Your task to perform on an android device: Empty the shopping cart on amazon.com. Search for "apple airpods" on amazon.com, select the first entry, add it to the cart, then select checkout. Image 0: 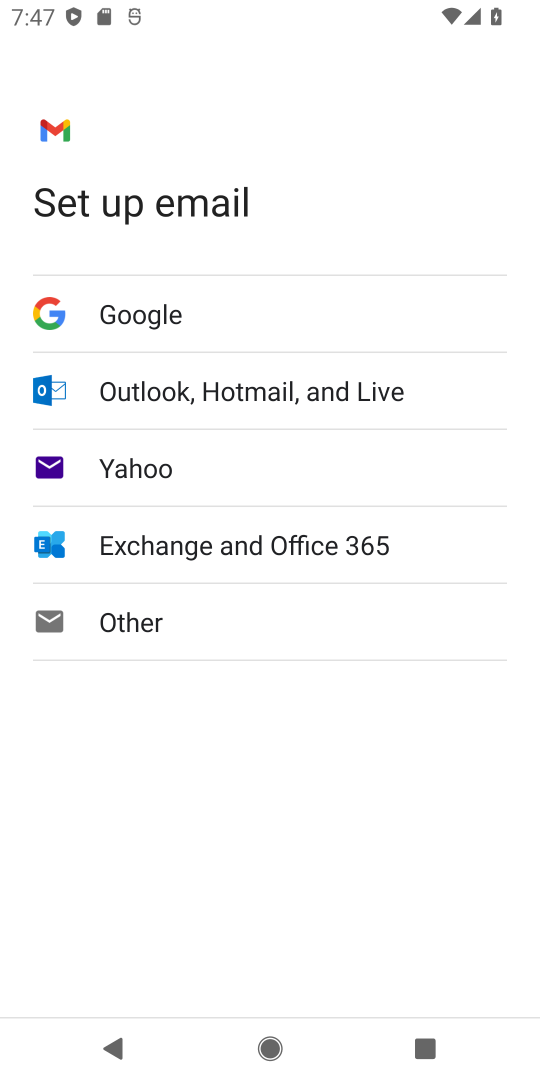
Step 0: press home button
Your task to perform on an android device: Empty the shopping cart on amazon.com. Search for "apple airpods" on amazon.com, select the first entry, add it to the cart, then select checkout. Image 1: 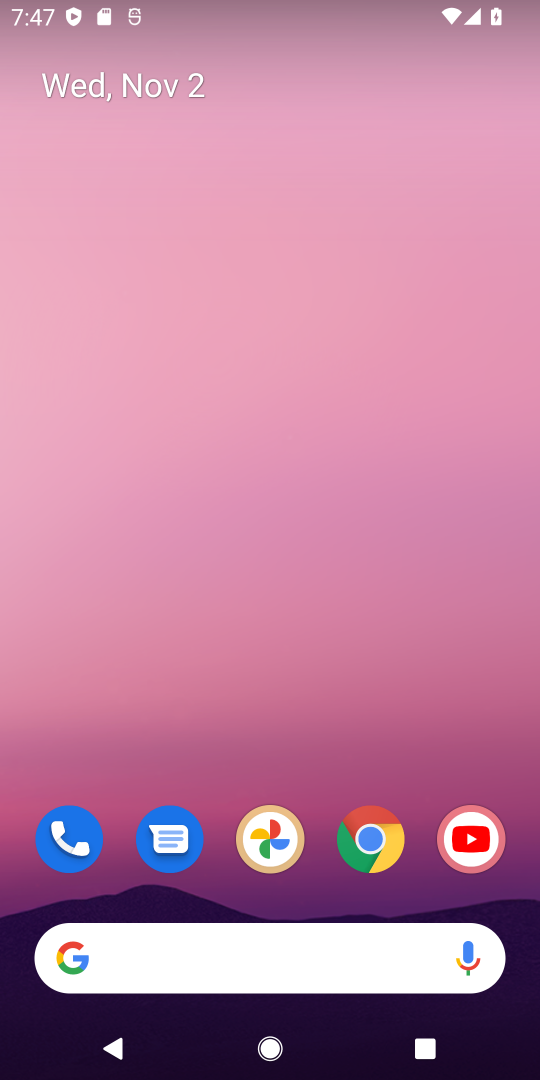
Step 1: click (368, 837)
Your task to perform on an android device: Empty the shopping cart on amazon.com. Search for "apple airpods" on amazon.com, select the first entry, add it to the cart, then select checkout. Image 2: 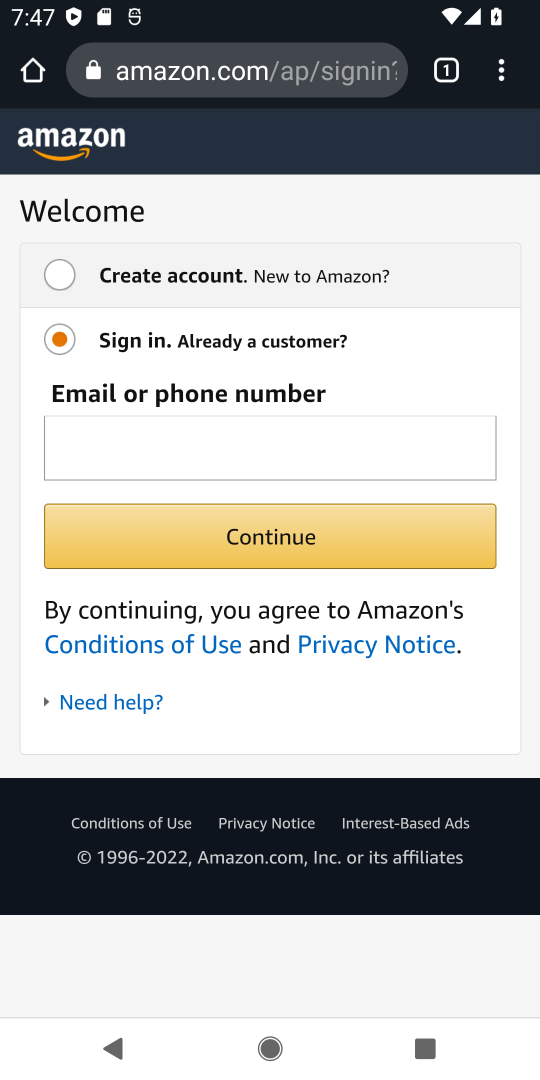
Step 2: click (295, 56)
Your task to perform on an android device: Empty the shopping cart on amazon.com. Search for "apple airpods" on amazon.com, select the first entry, add it to the cart, then select checkout. Image 3: 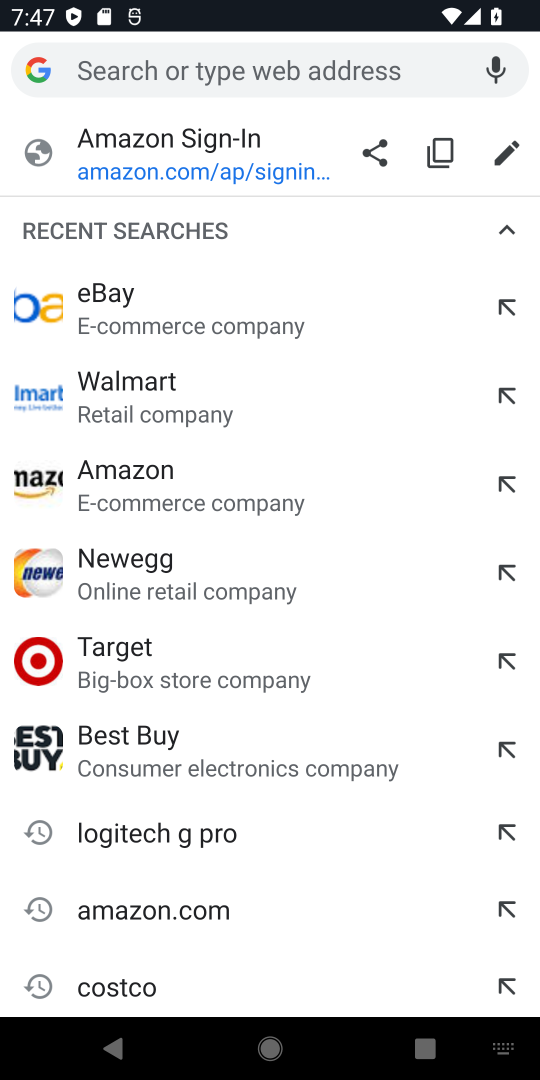
Step 3: type "amazon.com"
Your task to perform on an android device: Empty the shopping cart on amazon.com. Search for "apple airpods" on amazon.com, select the first entry, add it to the cart, then select checkout. Image 4: 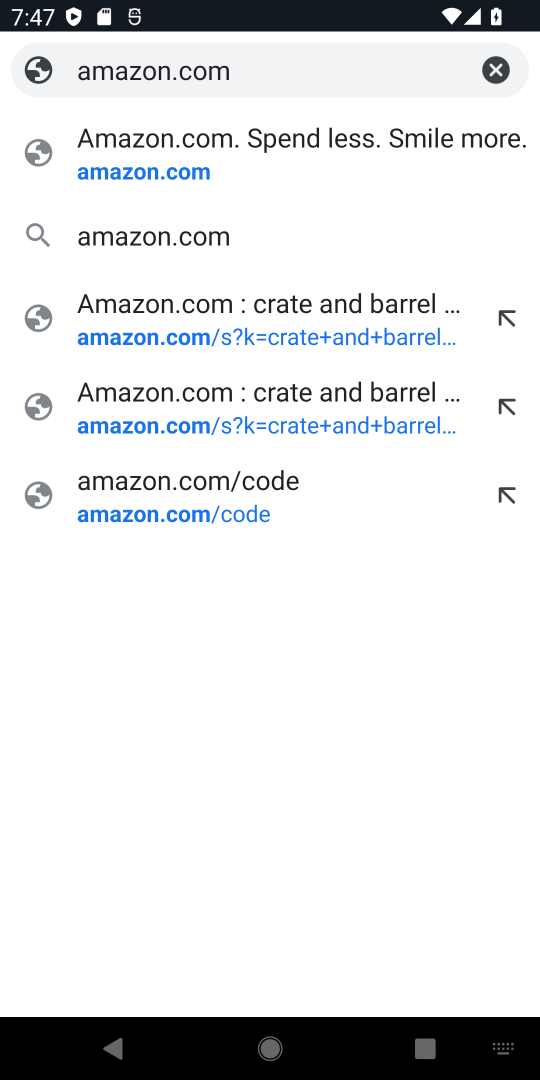
Step 4: click (190, 239)
Your task to perform on an android device: Empty the shopping cart on amazon.com. Search for "apple airpods" on amazon.com, select the first entry, add it to the cart, then select checkout. Image 5: 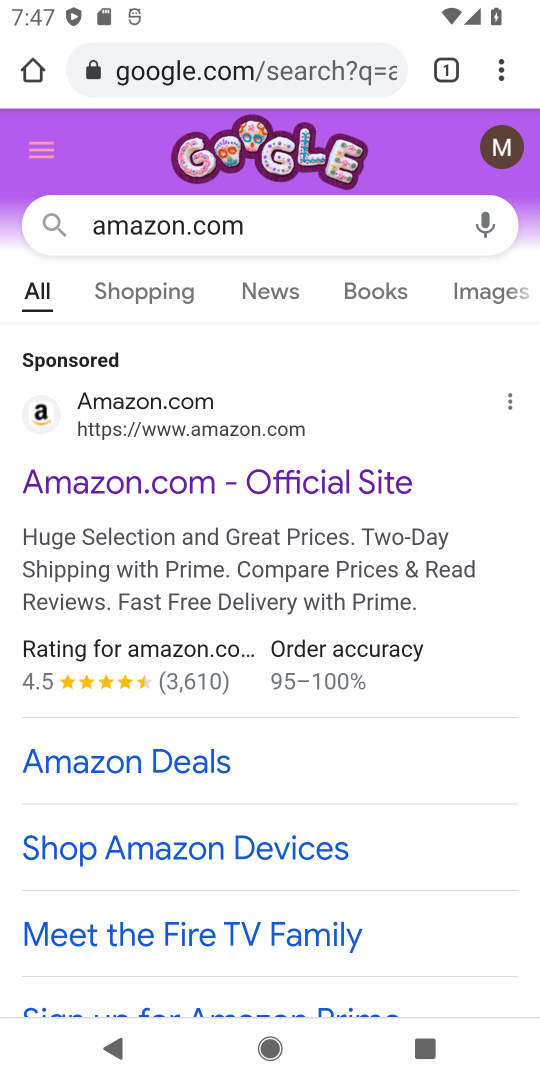
Step 5: drag from (263, 791) to (293, 367)
Your task to perform on an android device: Empty the shopping cart on amazon.com. Search for "apple airpods" on amazon.com, select the first entry, add it to the cart, then select checkout. Image 6: 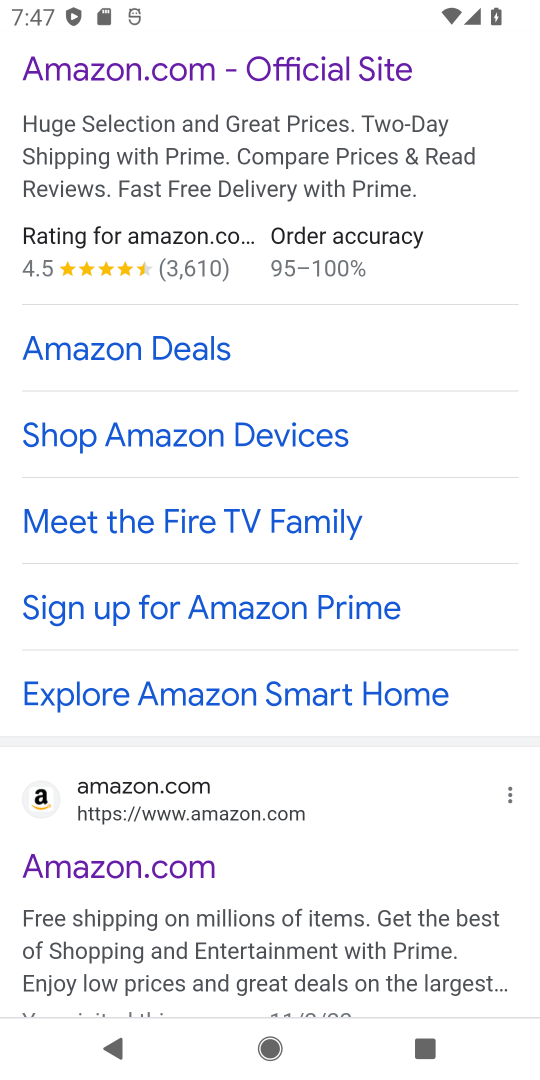
Step 6: click (260, 860)
Your task to perform on an android device: Empty the shopping cart on amazon.com. Search for "apple airpods" on amazon.com, select the first entry, add it to the cart, then select checkout. Image 7: 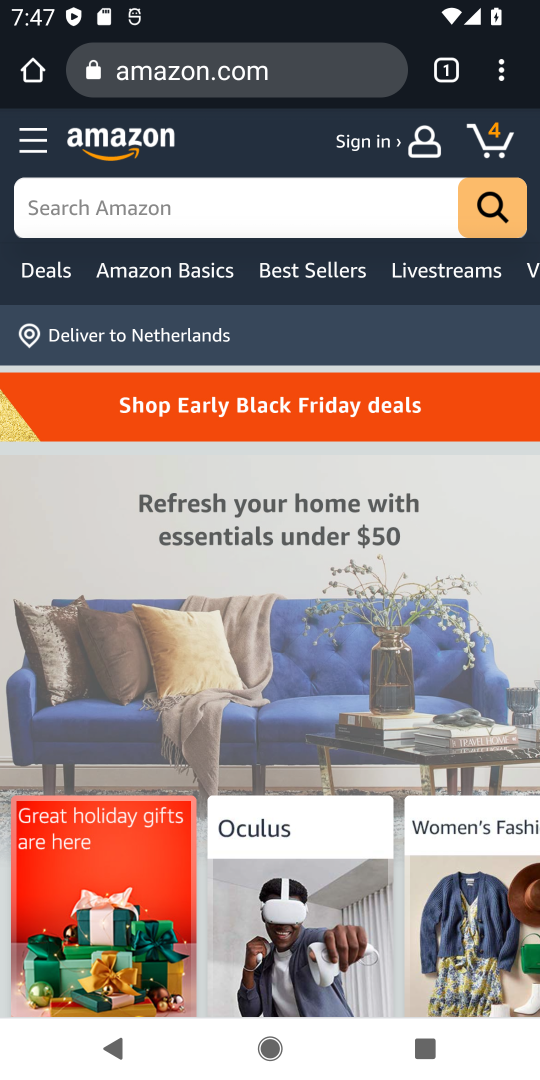
Step 7: click (493, 150)
Your task to perform on an android device: Empty the shopping cart on amazon.com. Search for "apple airpods" on amazon.com, select the first entry, add it to the cart, then select checkout. Image 8: 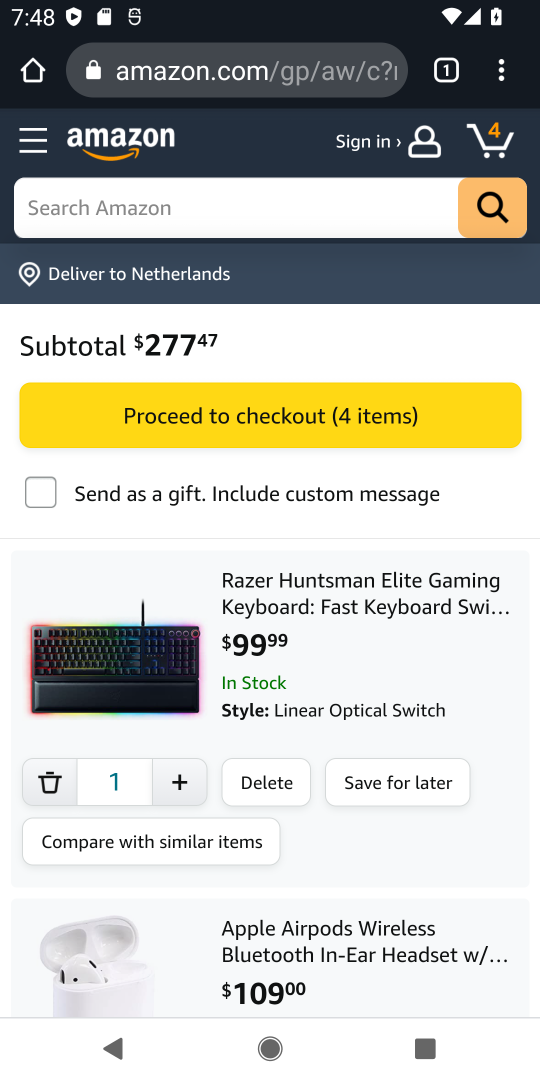
Step 8: click (252, 787)
Your task to perform on an android device: Empty the shopping cart on amazon.com. Search for "apple airpods" on amazon.com, select the first entry, add it to the cart, then select checkout. Image 9: 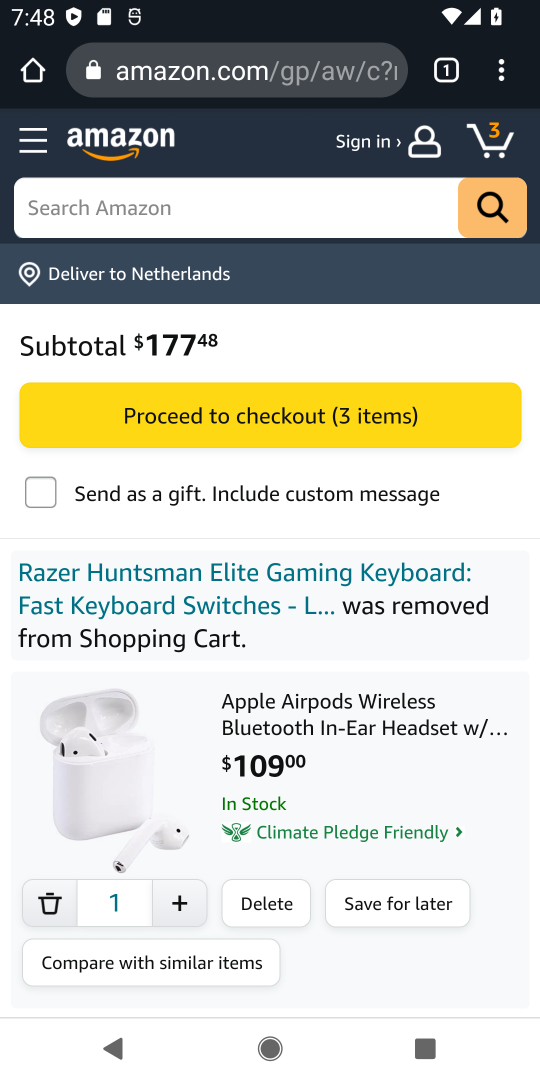
Step 9: click (272, 894)
Your task to perform on an android device: Empty the shopping cart on amazon.com. Search for "apple airpods" on amazon.com, select the first entry, add it to the cart, then select checkout. Image 10: 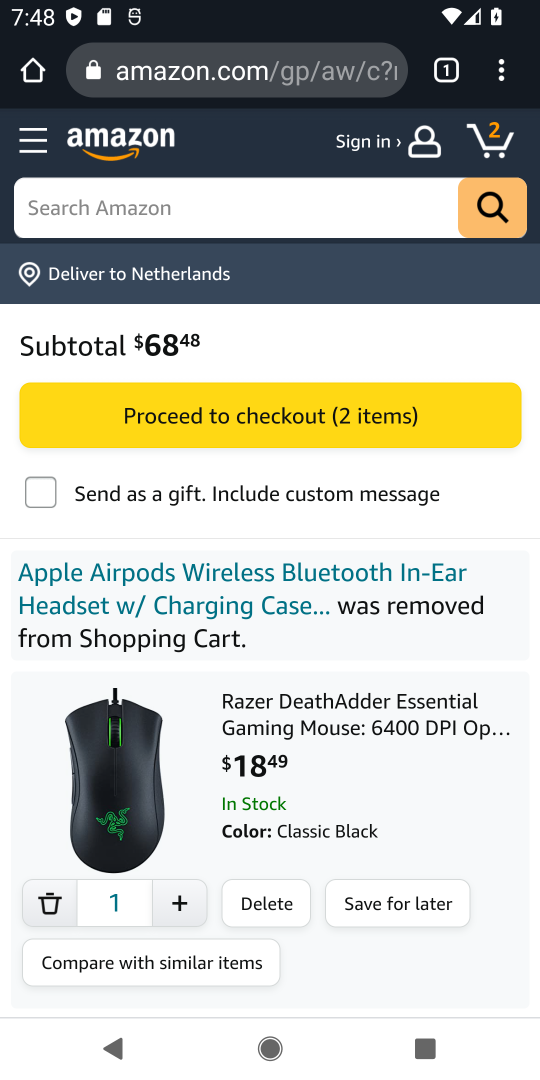
Step 10: click (272, 894)
Your task to perform on an android device: Empty the shopping cart on amazon.com. Search for "apple airpods" on amazon.com, select the first entry, add it to the cart, then select checkout. Image 11: 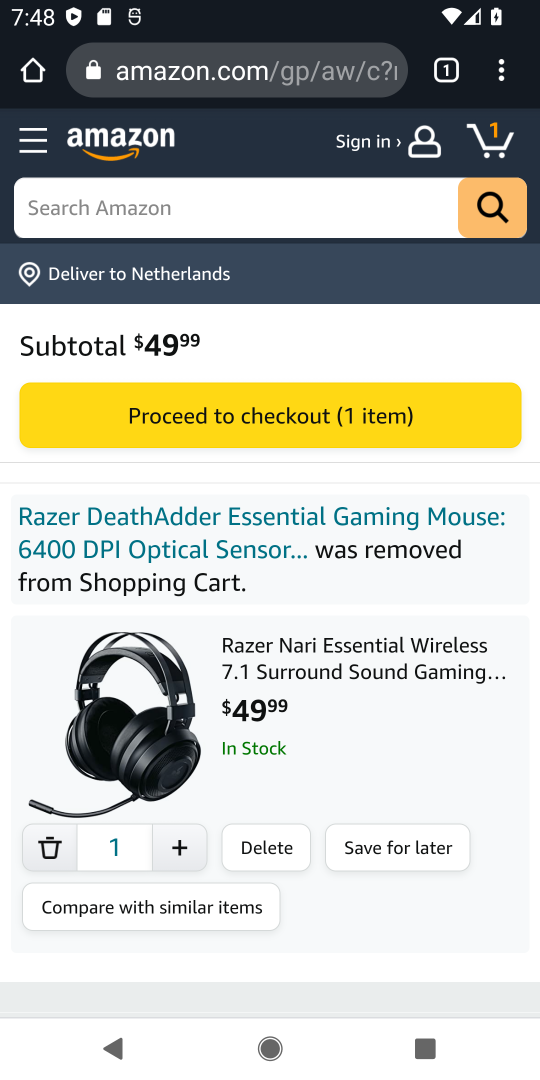
Step 11: click (273, 853)
Your task to perform on an android device: Empty the shopping cart on amazon.com. Search for "apple airpods" on amazon.com, select the first entry, add it to the cart, then select checkout. Image 12: 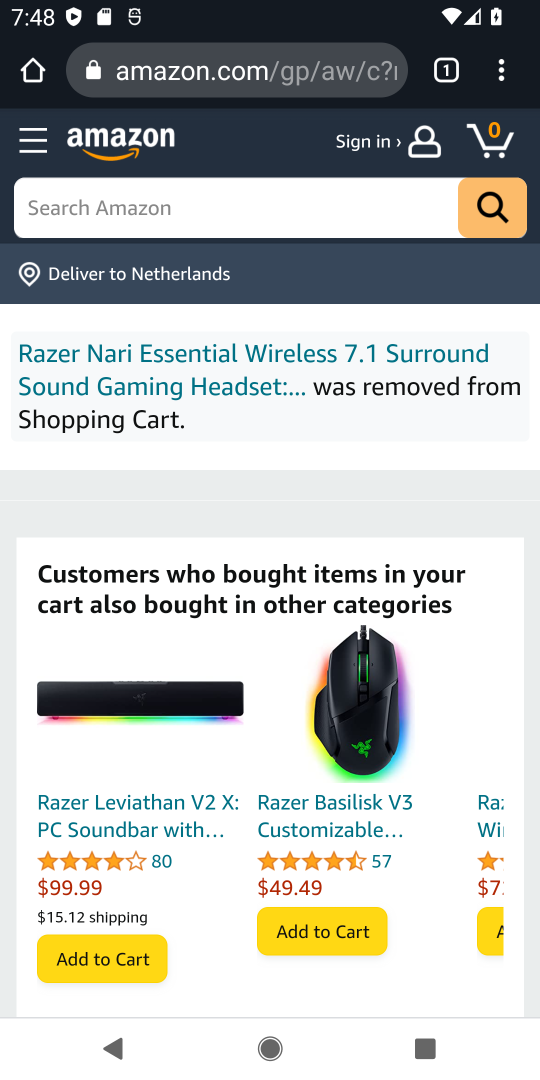
Step 12: click (380, 206)
Your task to perform on an android device: Empty the shopping cart on amazon.com. Search for "apple airpods" on amazon.com, select the first entry, add it to the cart, then select checkout. Image 13: 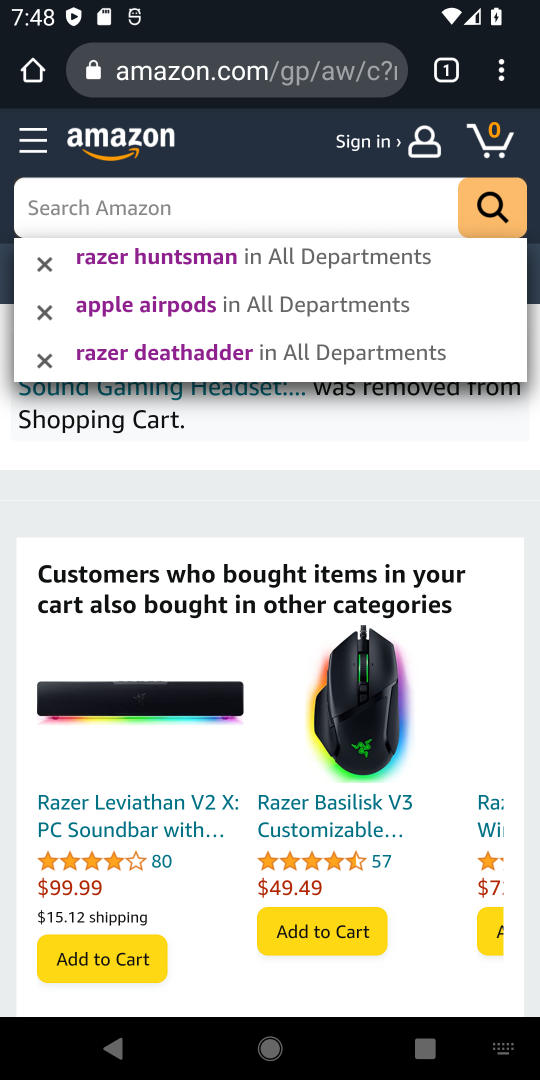
Step 13: type "apple airpods"
Your task to perform on an android device: Empty the shopping cart on amazon.com. Search for "apple airpods" on amazon.com, select the first entry, add it to the cart, then select checkout. Image 14: 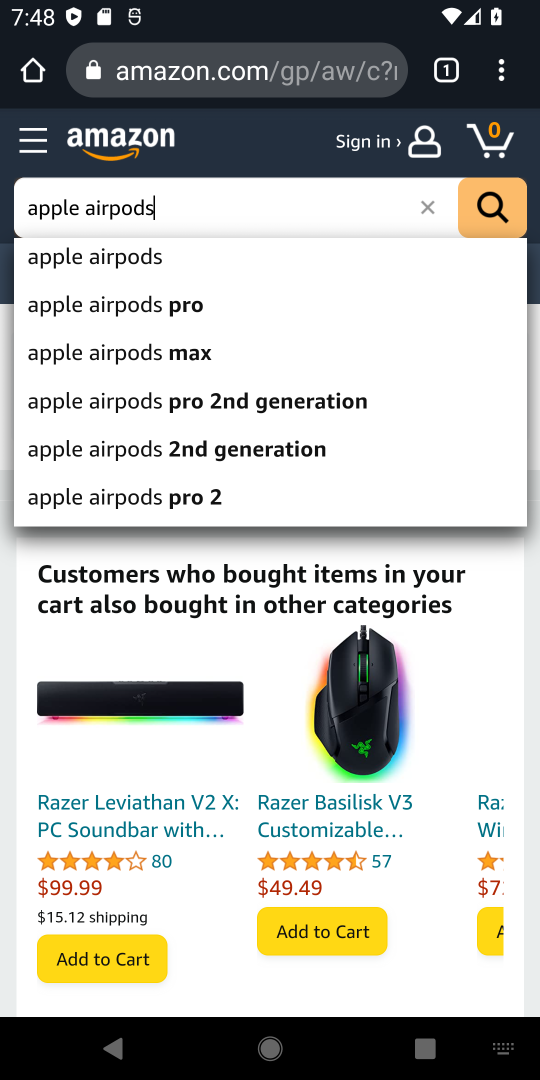
Step 14: click (139, 261)
Your task to perform on an android device: Empty the shopping cart on amazon.com. Search for "apple airpods" on amazon.com, select the first entry, add it to the cart, then select checkout. Image 15: 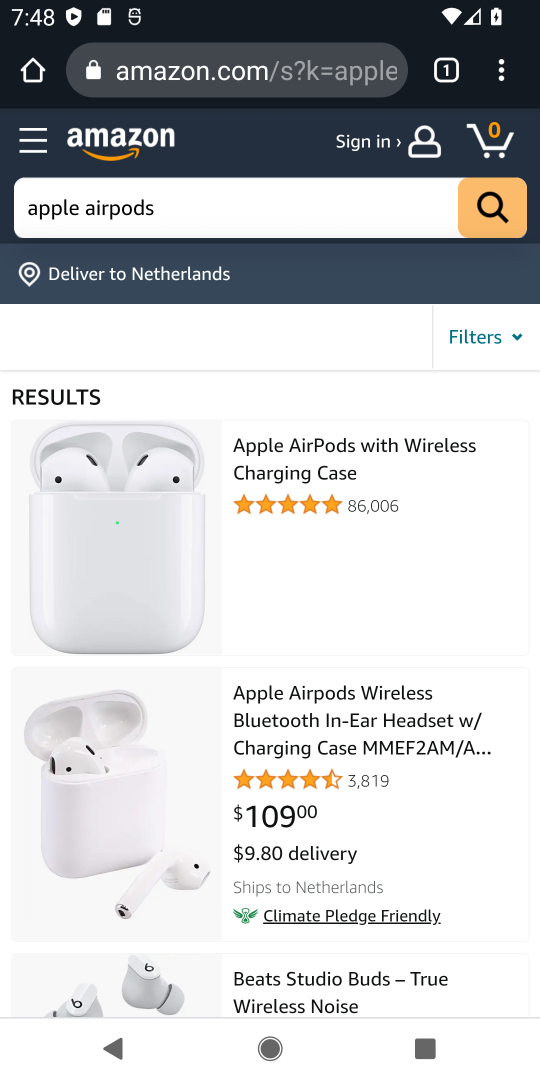
Step 15: click (364, 741)
Your task to perform on an android device: Empty the shopping cart on amazon.com. Search for "apple airpods" on amazon.com, select the first entry, add it to the cart, then select checkout. Image 16: 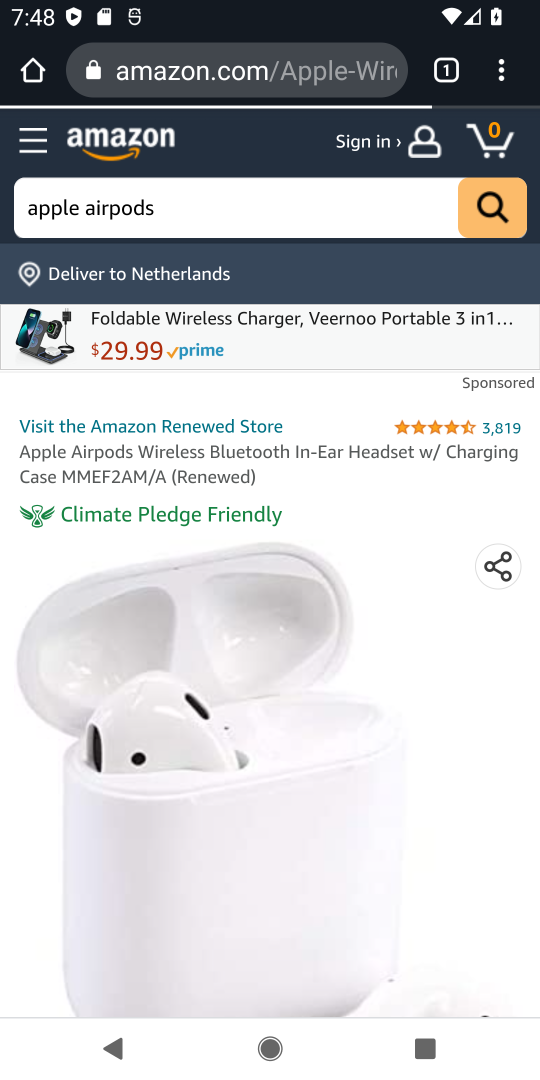
Step 16: drag from (437, 799) to (398, 352)
Your task to perform on an android device: Empty the shopping cart on amazon.com. Search for "apple airpods" on amazon.com, select the first entry, add it to the cart, then select checkout. Image 17: 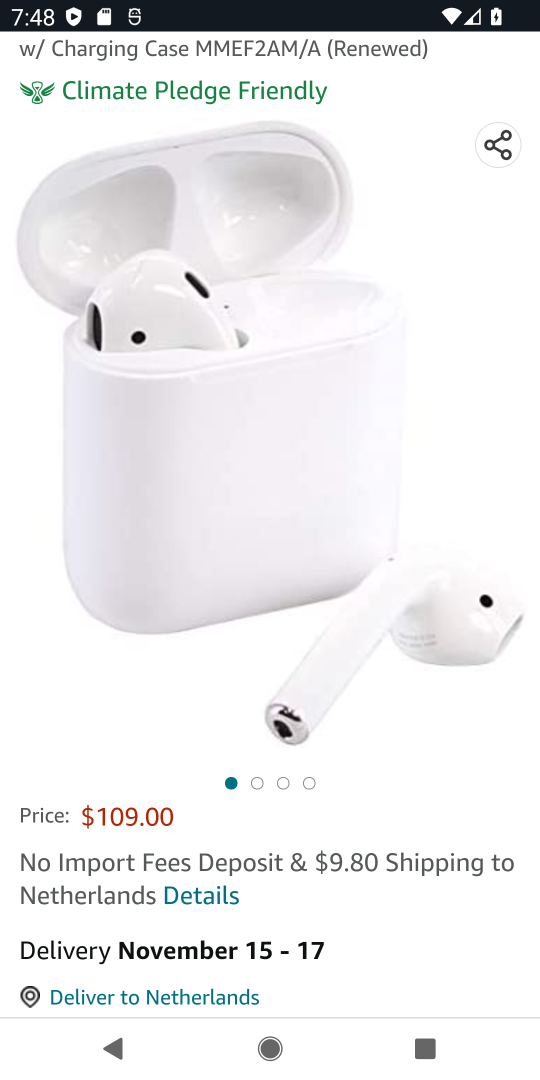
Step 17: drag from (360, 821) to (338, 342)
Your task to perform on an android device: Empty the shopping cart on amazon.com. Search for "apple airpods" on amazon.com, select the first entry, add it to the cart, then select checkout. Image 18: 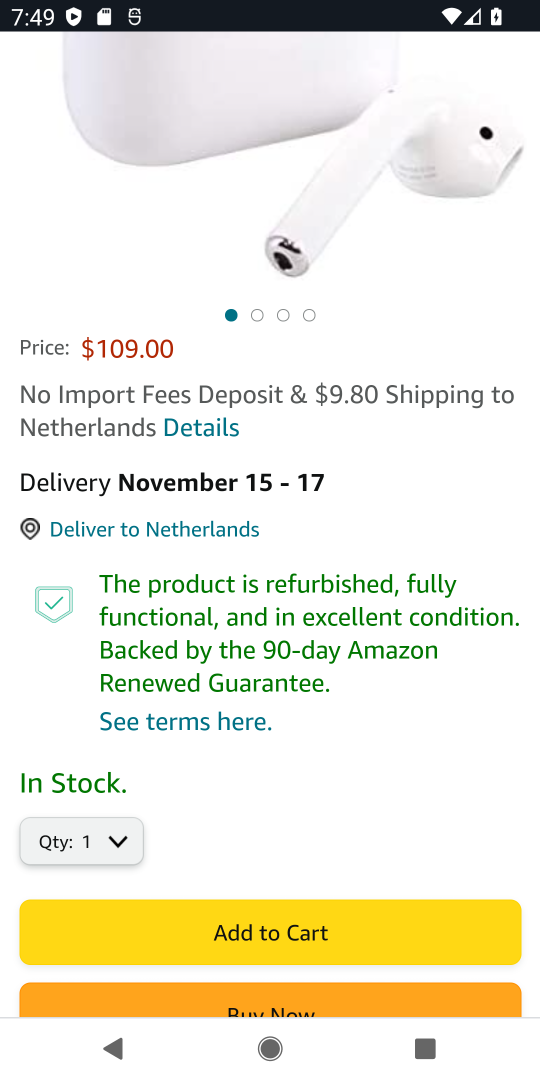
Step 18: click (280, 935)
Your task to perform on an android device: Empty the shopping cart on amazon.com. Search for "apple airpods" on amazon.com, select the first entry, add it to the cart, then select checkout. Image 19: 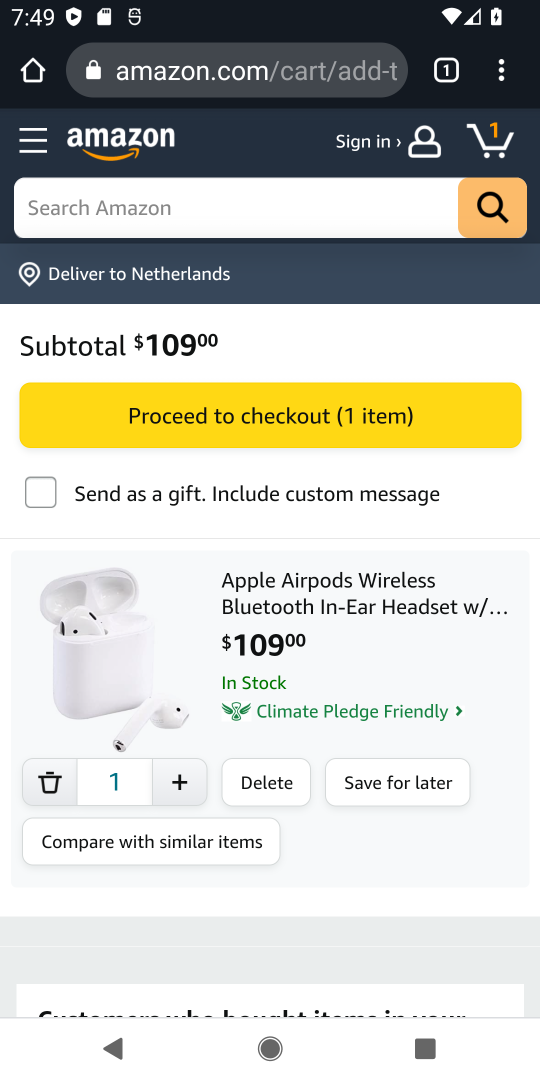
Step 19: click (330, 417)
Your task to perform on an android device: Empty the shopping cart on amazon.com. Search for "apple airpods" on amazon.com, select the first entry, add it to the cart, then select checkout. Image 20: 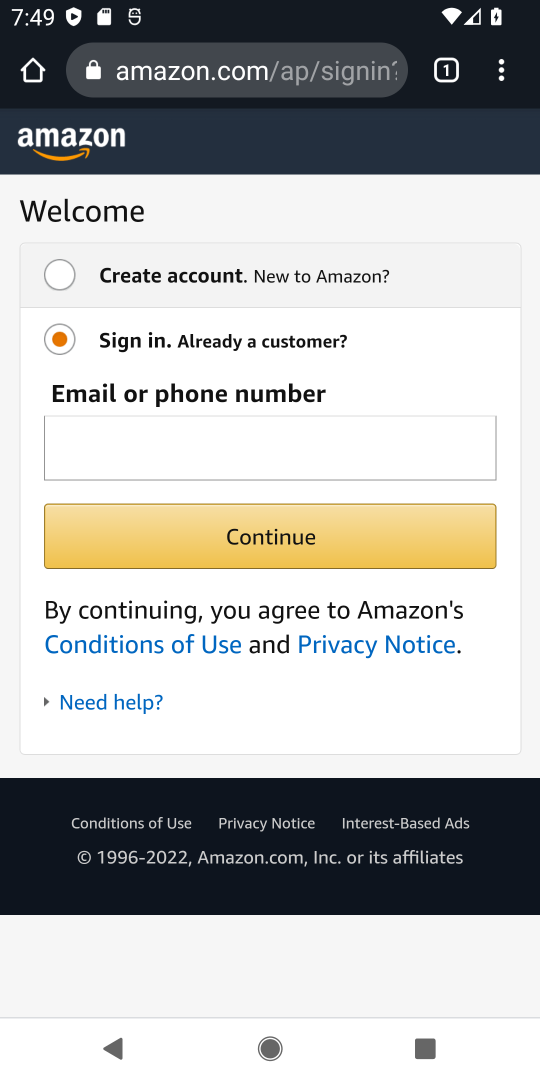
Step 20: task complete